Your task to perform on an android device: add a contact in the contacts app Image 0: 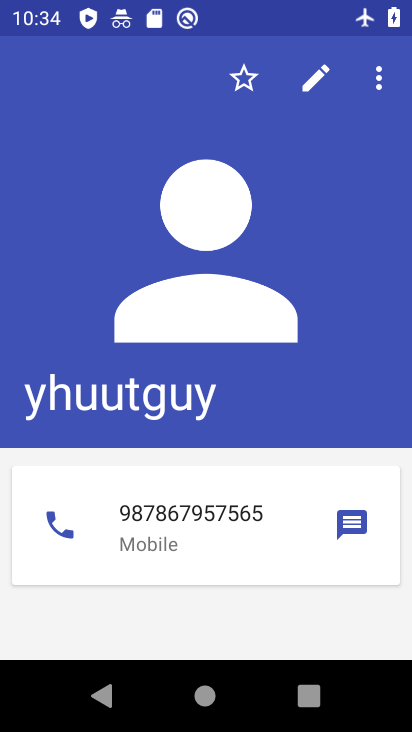
Step 0: press home button
Your task to perform on an android device: add a contact in the contacts app Image 1: 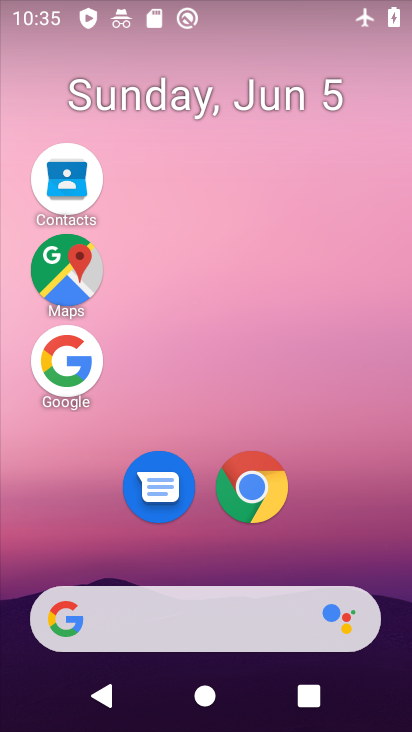
Step 1: drag from (141, 615) to (223, 162)
Your task to perform on an android device: add a contact in the contacts app Image 2: 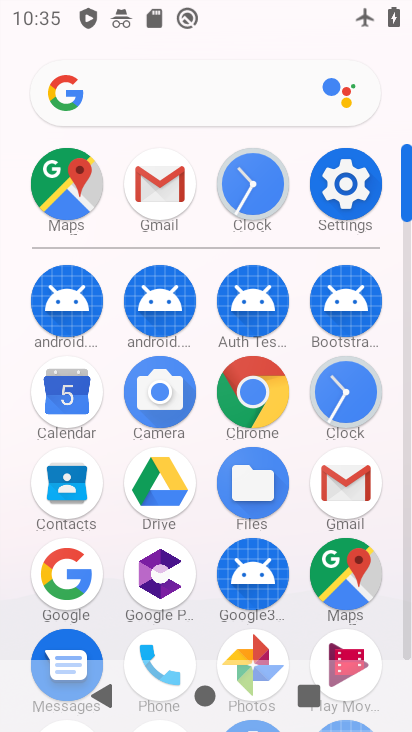
Step 2: click (74, 508)
Your task to perform on an android device: add a contact in the contacts app Image 3: 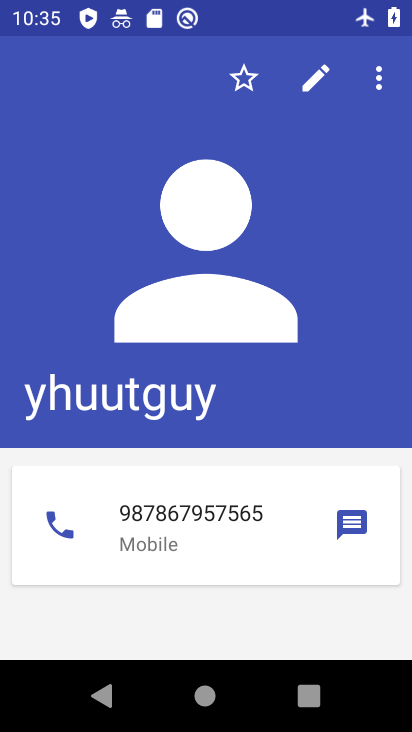
Step 3: press back button
Your task to perform on an android device: add a contact in the contacts app Image 4: 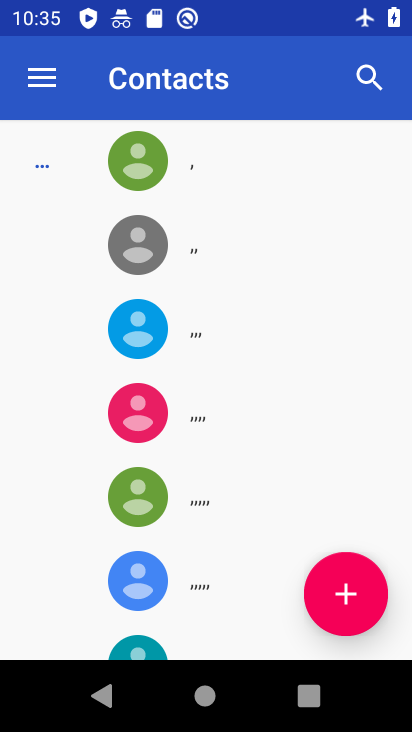
Step 4: click (355, 605)
Your task to perform on an android device: add a contact in the contacts app Image 5: 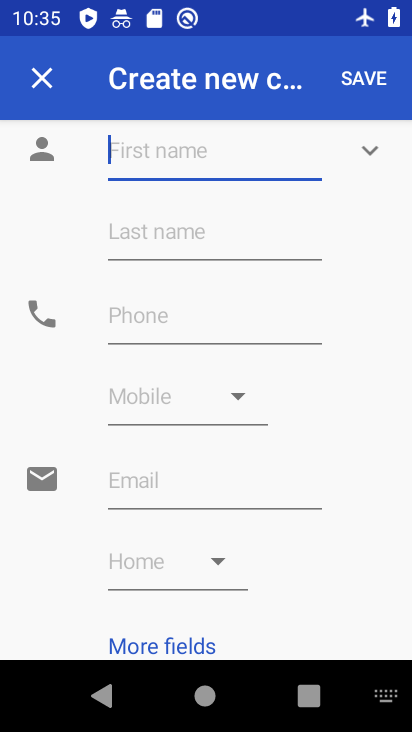
Step 5: type "ghfthdru"
Your task to perform on an android device: add a contact in the contacts app Image 6: 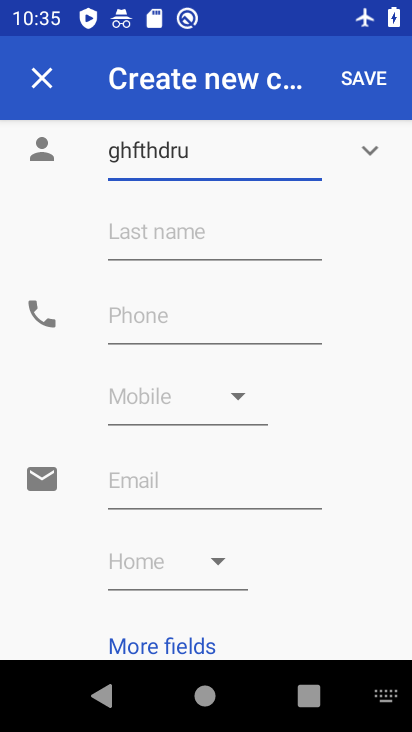
Step 6: click (260, 327)
Your task to perform on an android device: add a contact in the contacts app Image 7: 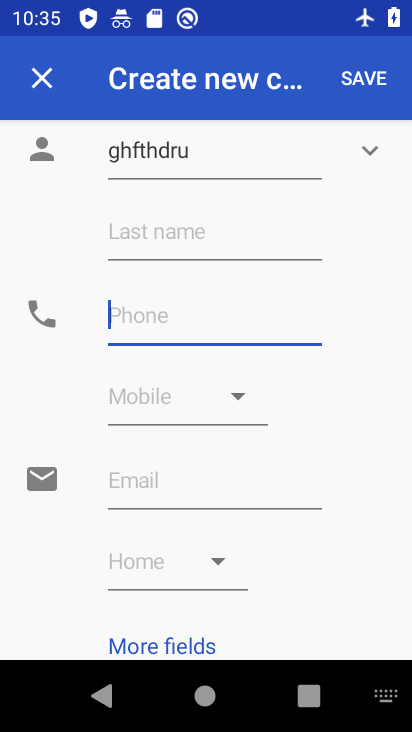
Step 7: type "9875658657"
Your task to perform on an android device: add a contact in the contacts app Image 8: 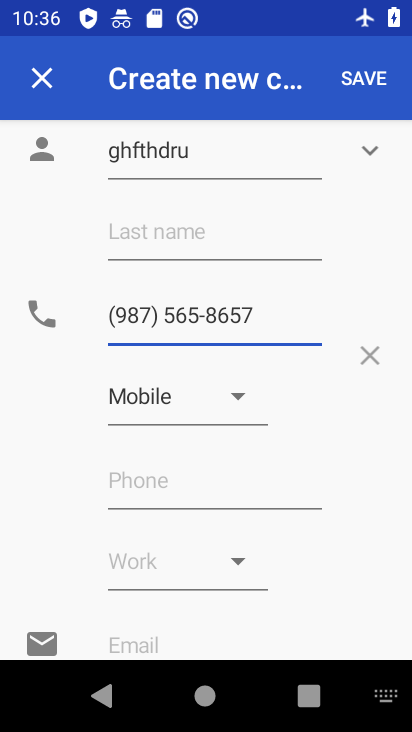
Step 8: click (346, 82)
Your task to perform on an android device: add a contact in the contacts app Image 9: 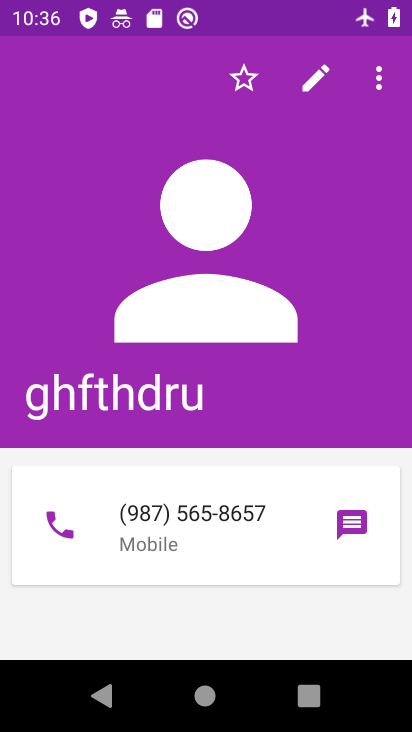
Step 9: task complete